Your task to perform on an android device: Search for macbook on amazon, select the first entry, and add it to the cart. Image 0: 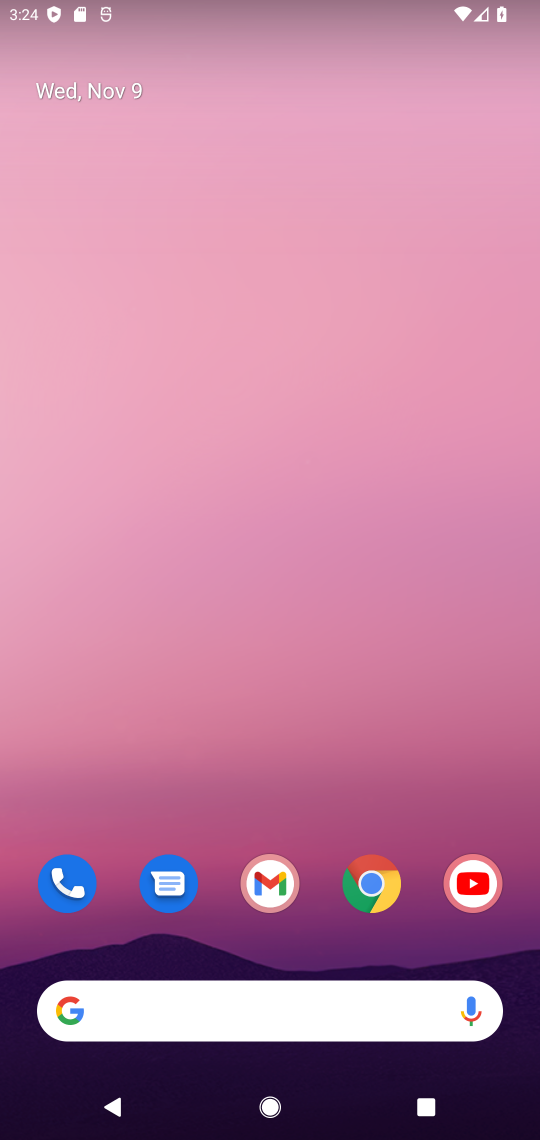
Step 0: click (376, 890)
Your task to perform on an android device: Search for macbook on amazon, select the first entry, and add it to the cart. Image 1: 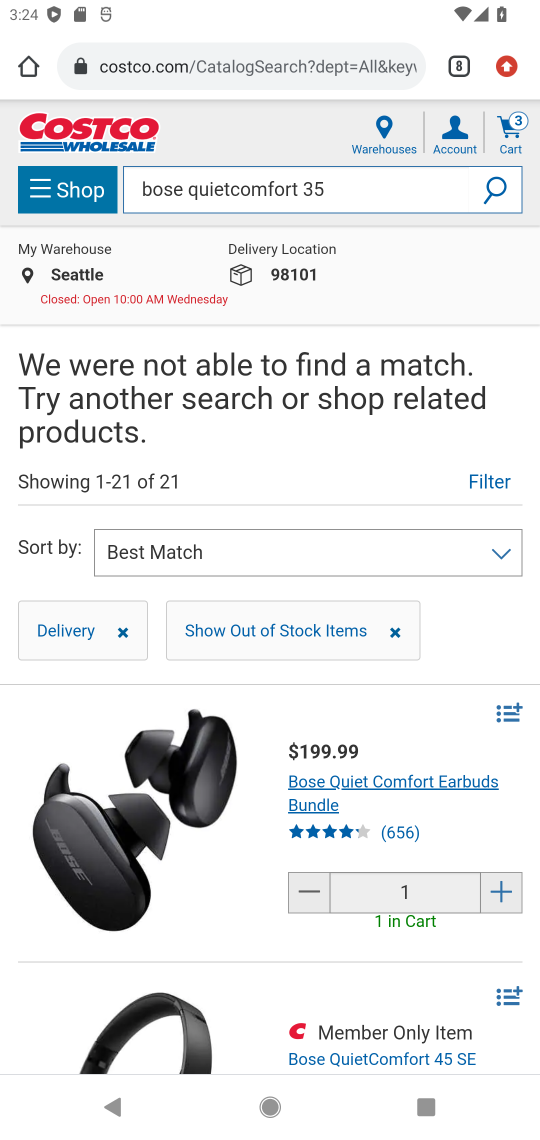
Step 1: click (461, 66)
Your task to perform on an android device: Search for macbook on amazon, select the first entry, and add it to the cart. Image 2: 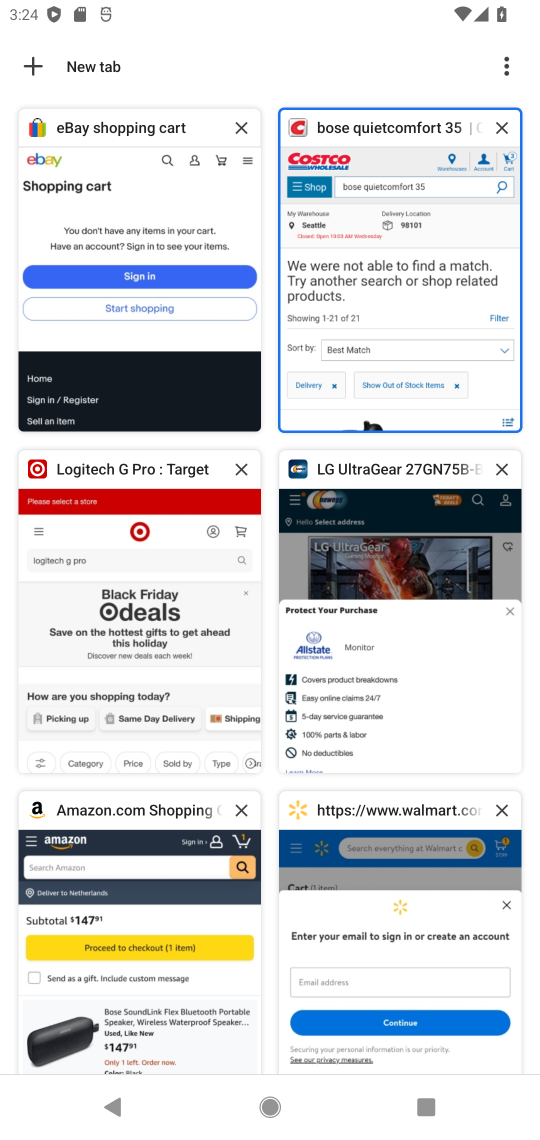
Step 2: click (144, 876)
Your task to perform on an android device: Search for macbook on amazon, select the first entry, and add it to the cart. Image 3: 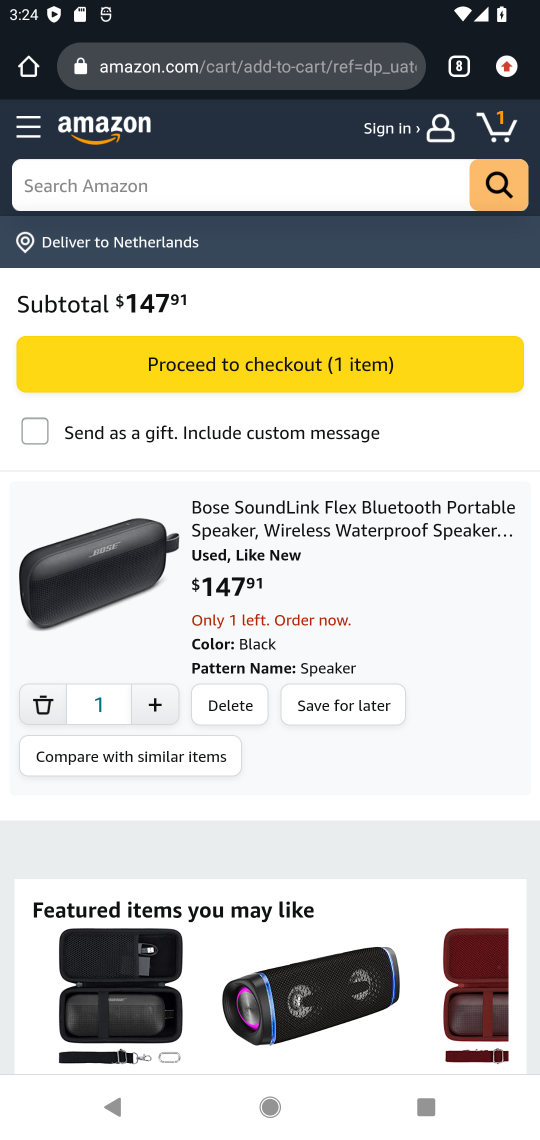
Step 3: click (89, 177)
Your task to perform on an android device: Search for macbook on amazon, select the first entry, and add it to the cart. Image 4: 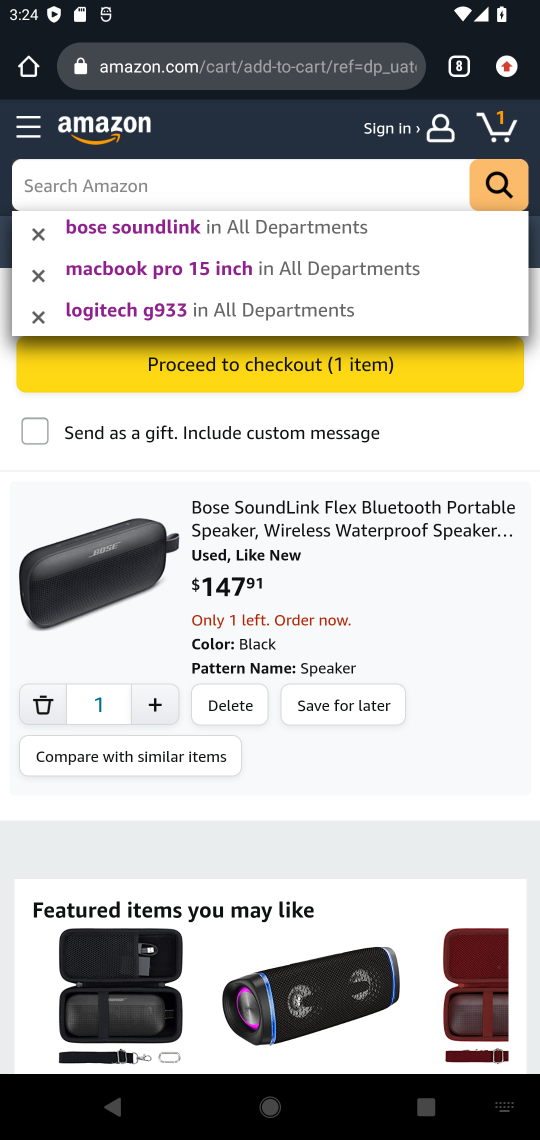
Step 4: type "macbook"
Your task to perform on an android device: Search for macbook on amazon, select the first entry, and add it to the cart. Image 5: 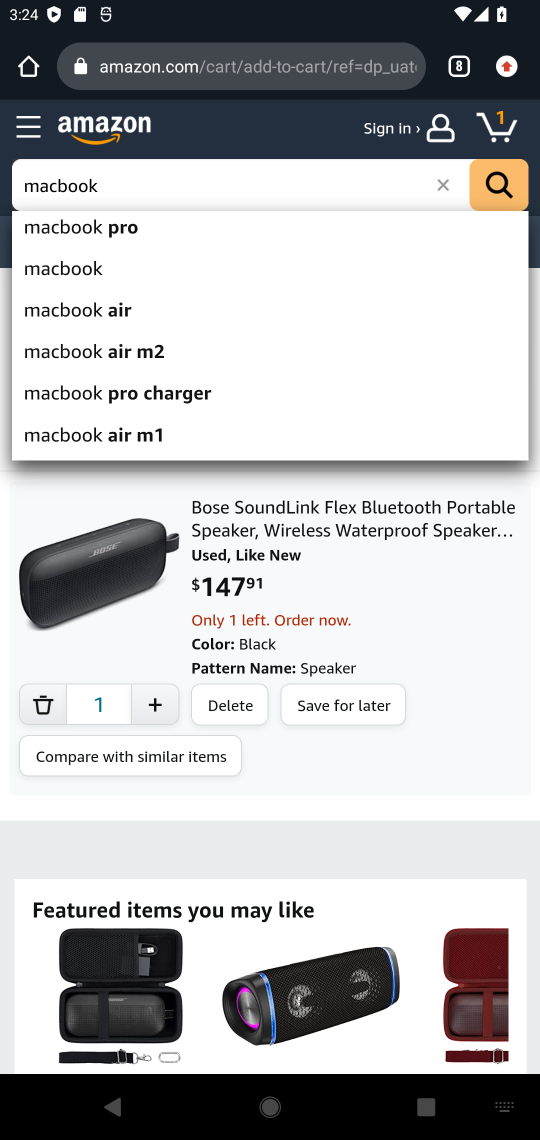
Step 5: click (75, 266)
Your task to perform on an android device: Search for macbook on amazon, select the first entry, and add it to the cart. Image 6: 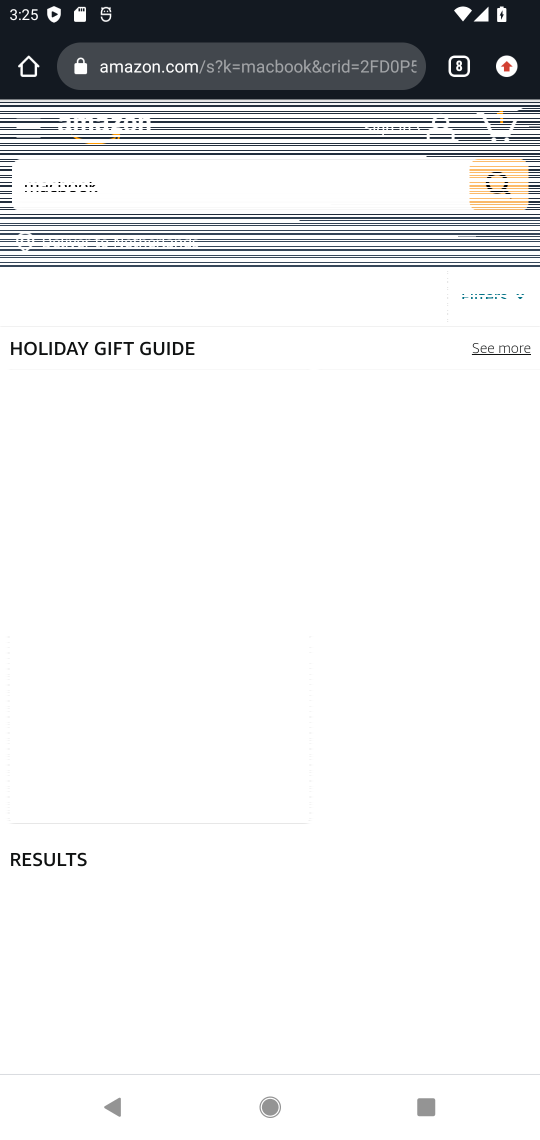
Step 6: click (366, 927)
Your task to perform on an android device: Search for macbook on amazon, select the first entry, and add it to the cart. Image 7: 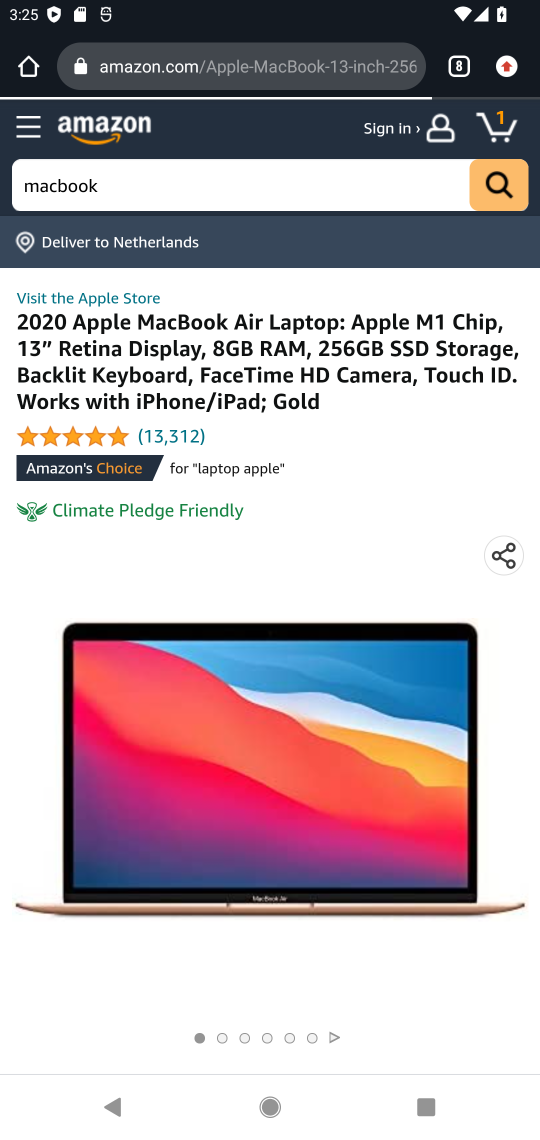
Step 7: drag from (321, 975) to (354, 204)
Your task to perform on an android device: Search for macbook on amazon, select the first entry, and add it to the cart. Image 8: 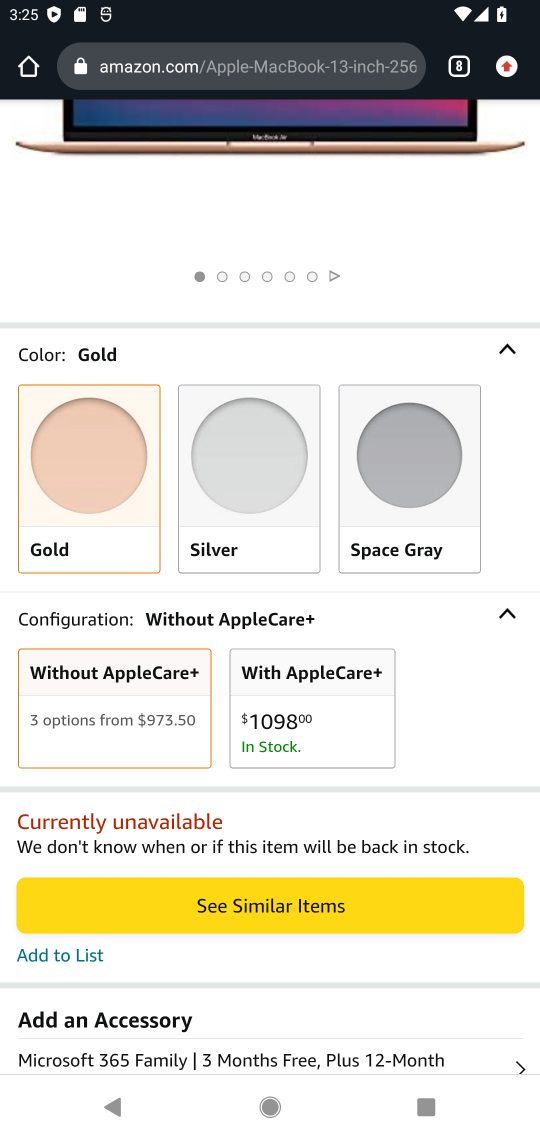
Step 8: click (266, 903)
Your task to perform on an android device: Search for macbook on amazon, select the first entry, and add it to the cart. Image 9: 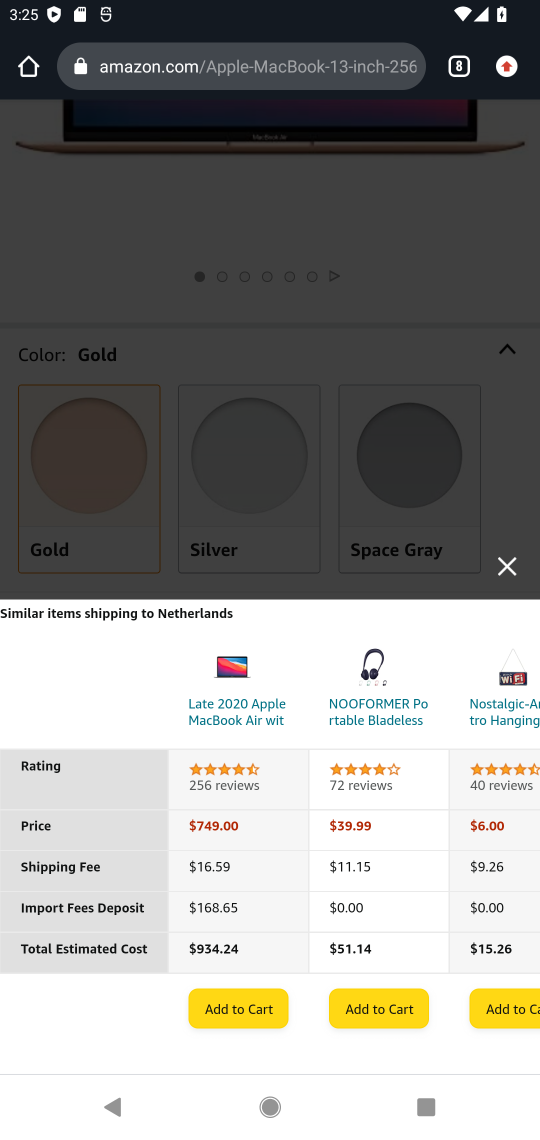
Step 9: click (234, 1003)
Your task to perform on an android device: Search for macbook on amazon, select the first entry, and add it to the cart. Image 10: 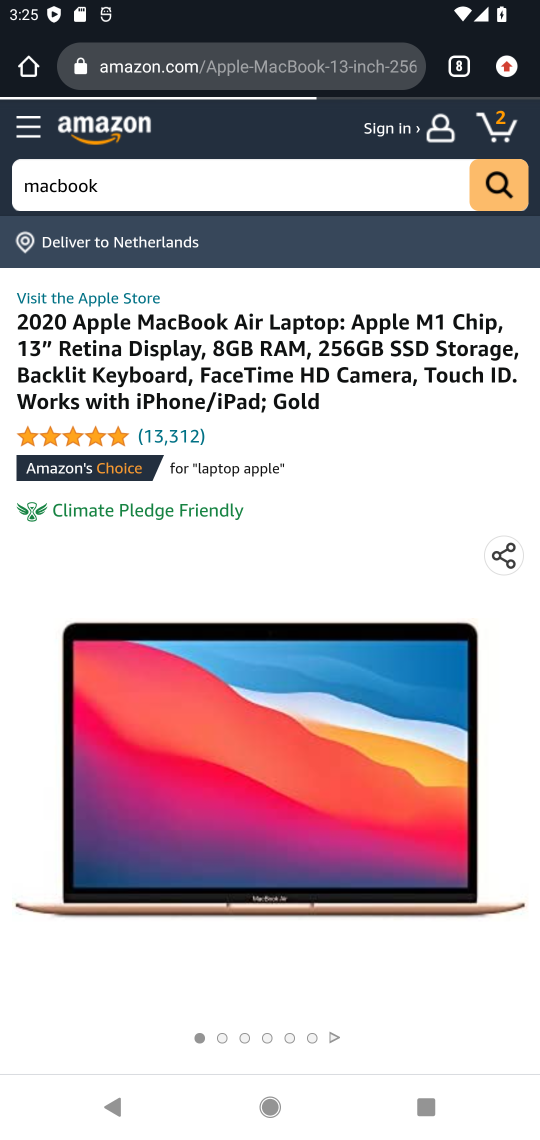
Step 10: task complete